Your task to perform on an android device: Go to internet settings Image 0: 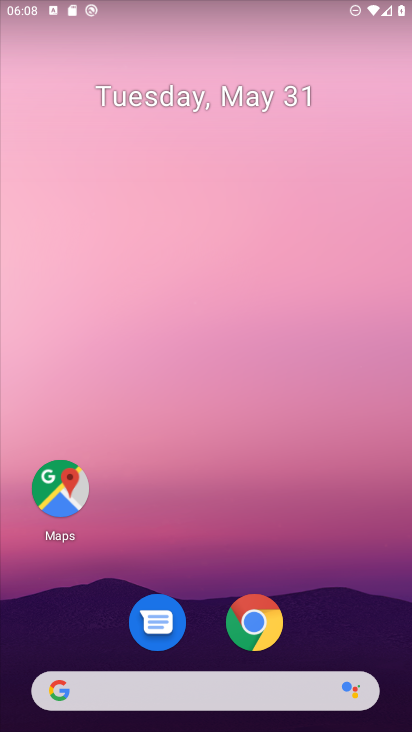
Step 0: drag from (299, 664) to (202, 155)
Your task to perform on an android device: Go to internet settings Image 1: 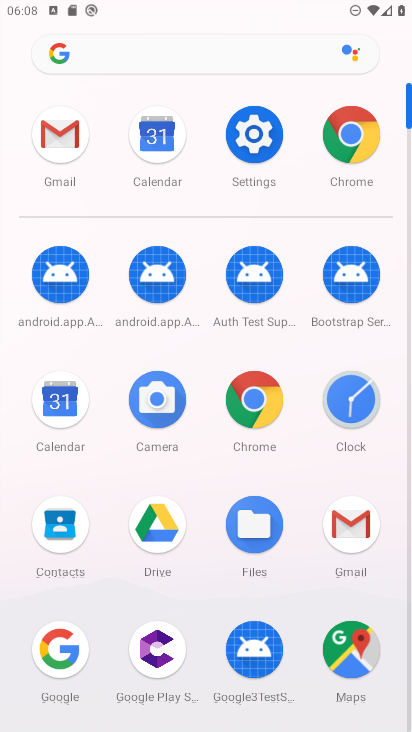
Step 1: click (242, 124)
Your task to perform on an android device: Go to internet settings Image 2: 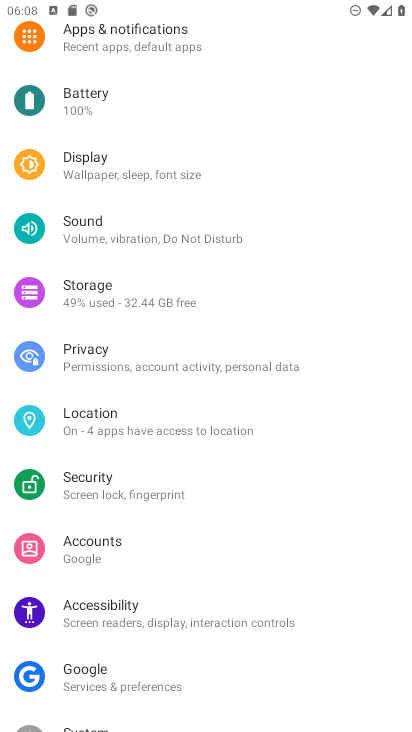
Step 2: drag from (275, 225) to (209, 718)
Your task to perform on an android device: Go to internet settings Image 3: 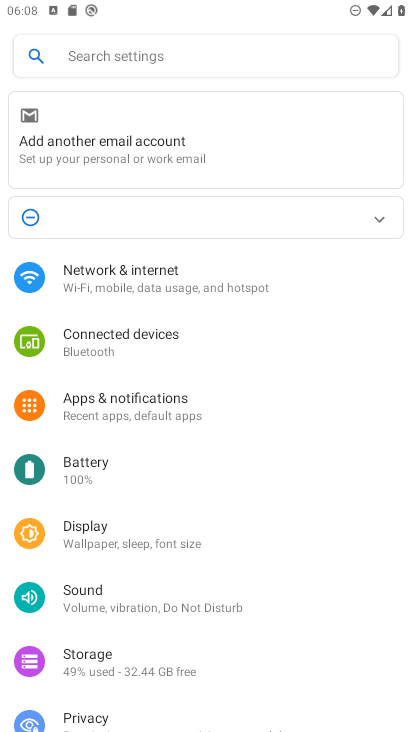
Step 3: click (188, 276)
Your task to perform on an android device: Go to internet settings Image 4: 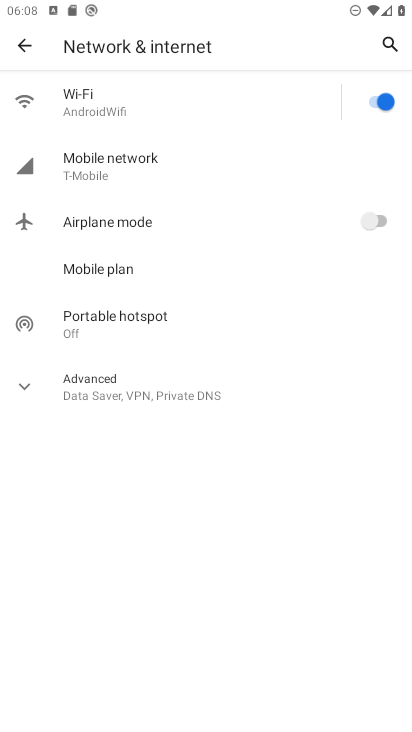
Step 4: click (183, 161)
Your task to perform on an android device: Go to internet settings Image 5: 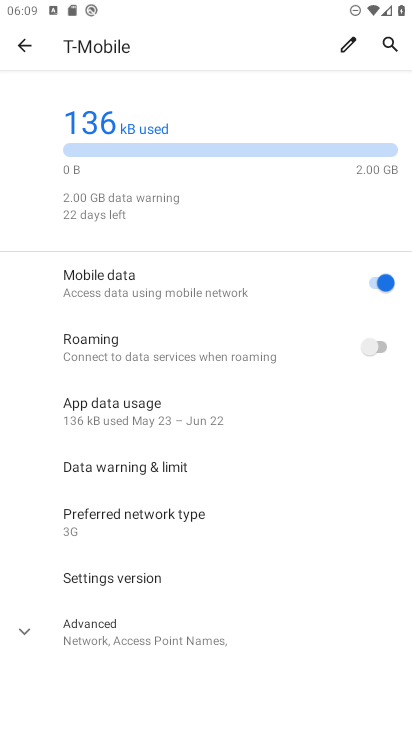
Step 5: task complete